Your task to perform on an android device: Go to Google maps Image 0: 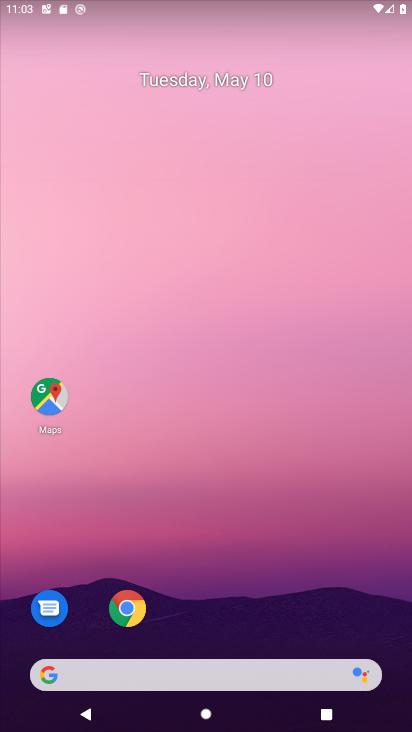
Step 0: click (32, 402)
Your task to perform on an android device: Go to Google maps Image 1: 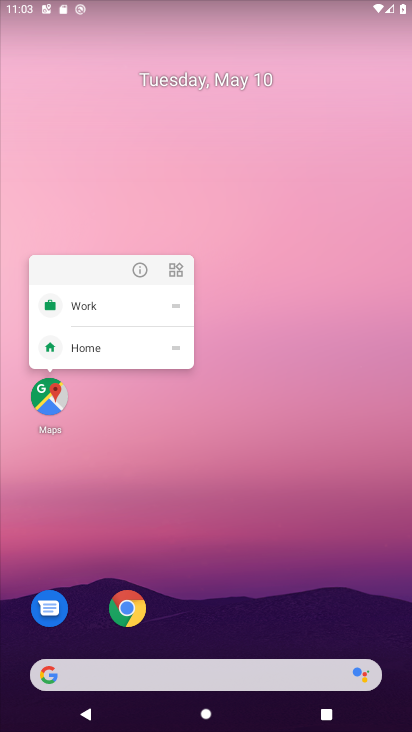
Step 1: click (38, 399)
Your task to perform on an android device: Go to Google maps Image 2: 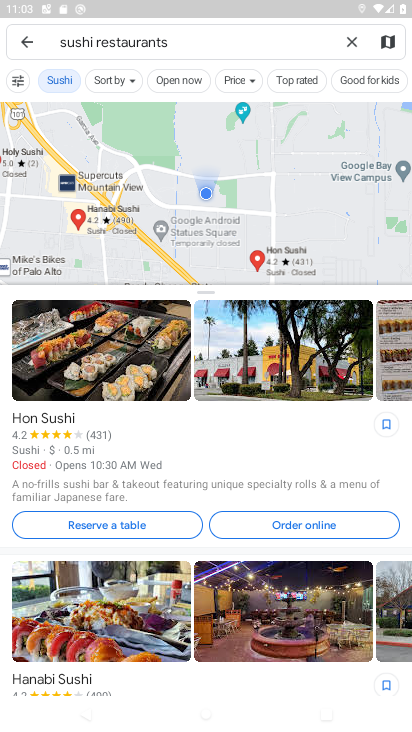
Step 2: click (351, 47)
Your task to perform on an android device: Go to Google maps Image 3: 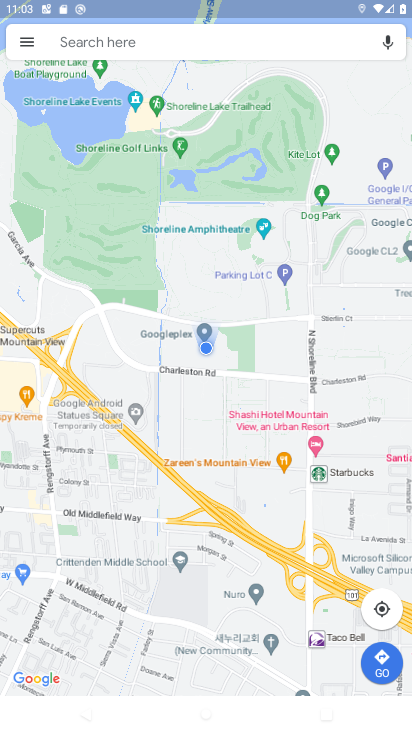
Step 3: task complete